Your task to perform on an android device: Open Youtube and go to the subscriptions tab Image 0: 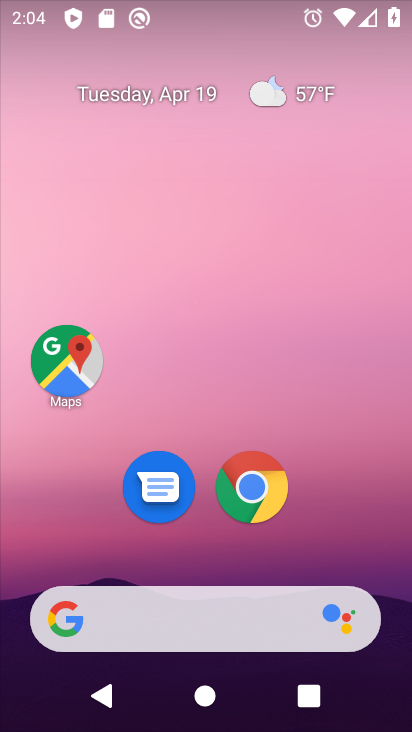
Step 0: drag from (376, 519) to (283, 27)
Your task to perform on an android device: Open Youtube and go to the subscriptions tab Image 1: 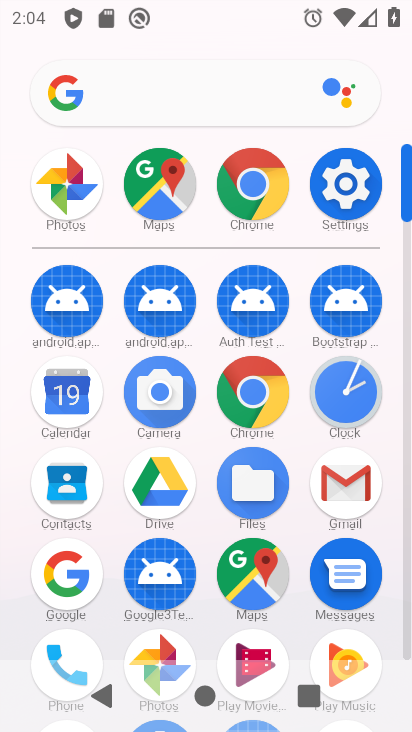
Step 1: drag from (300, 563) to (323, 322)
Your task to perform on an android device: Open Youtube and go to the subscriptions tab Image 2: 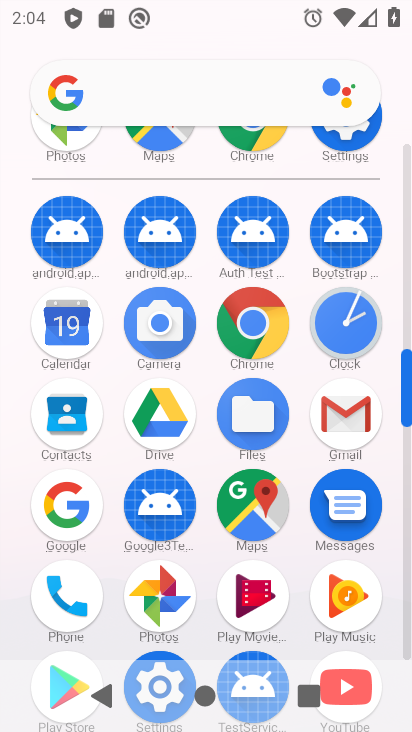
Step 2: drag from (298, 629) to (288, 369)
Your task to perform on an android device: Open Youtube and go to the subscriptions tab Image 3: 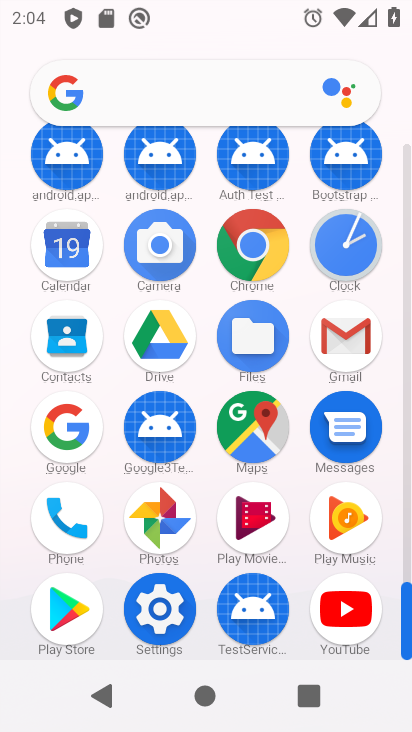
Step 3: click (336, 613)
Your task to perform on an android device: Open Youtube and go to the subscriptions tab Image 4: 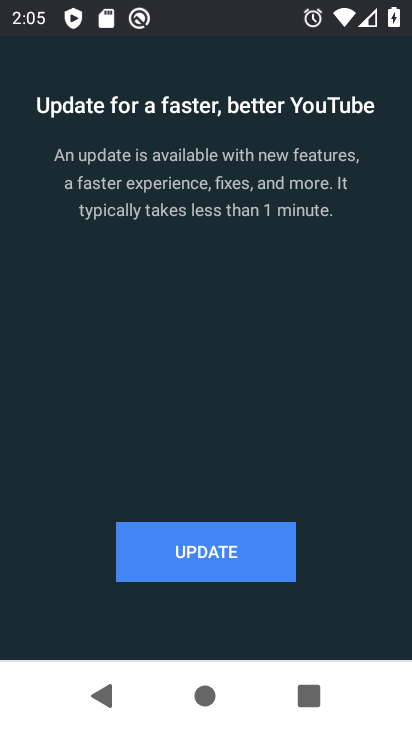
Step 4: click (209, 547)
Your task to perform on an android device: Open Youtube and go to the subscriptions tab Image 5: 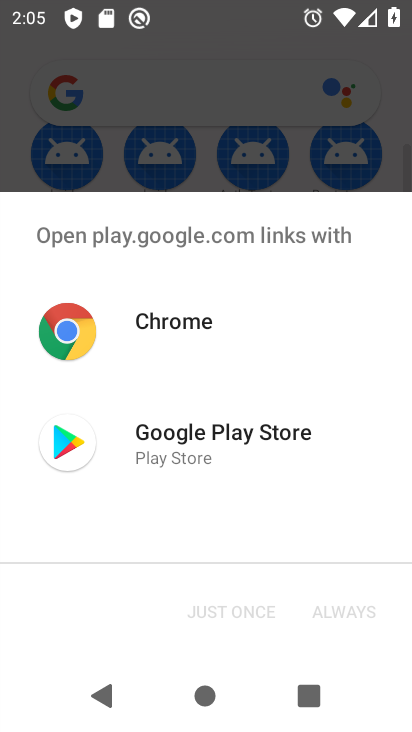
Step 5: click (192, 438)
Your task to perform on an android device: Open Youtube and go to the subscriptions tab Image 6: 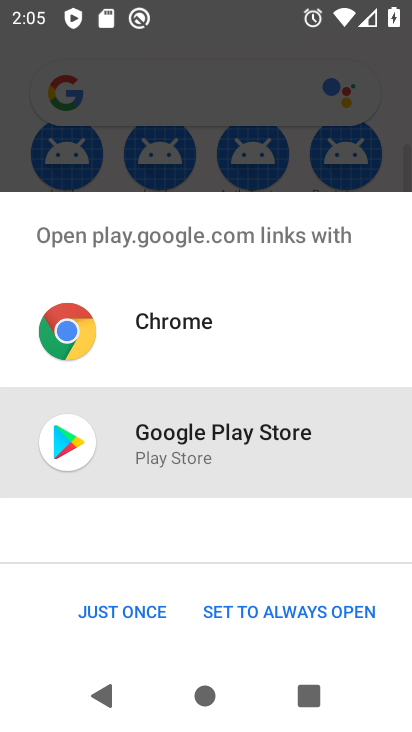
Step 6: click (116, 609)
Your task to perform on an android device: Open Youtube and go to the subscriptions tab Image 7: 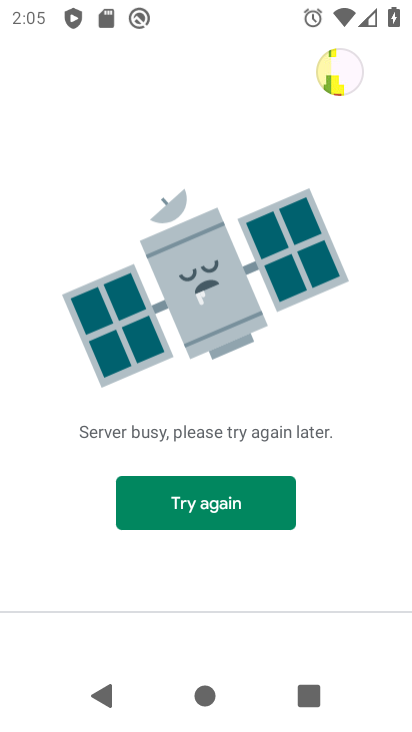
Step 7: task complete